Your task to perform on an android device: check android version Image 0: 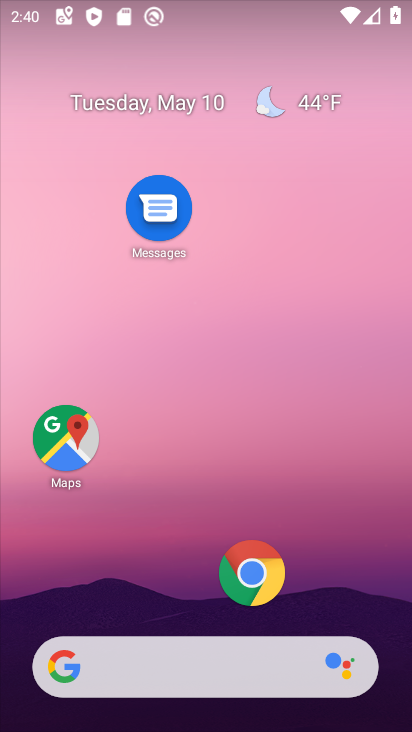
Step 0: drag from (174, 612) to (200, 175)
Your task to perform on an android device: check android version Image 1: 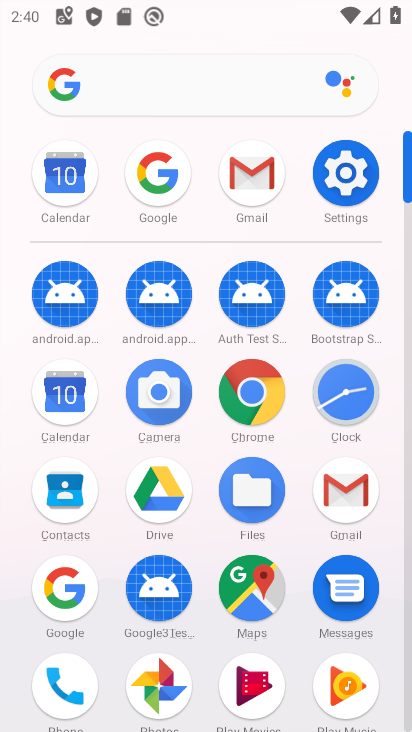
Step 1: click (337, 169)
Your task to perform on an android device: check android version Image 2: 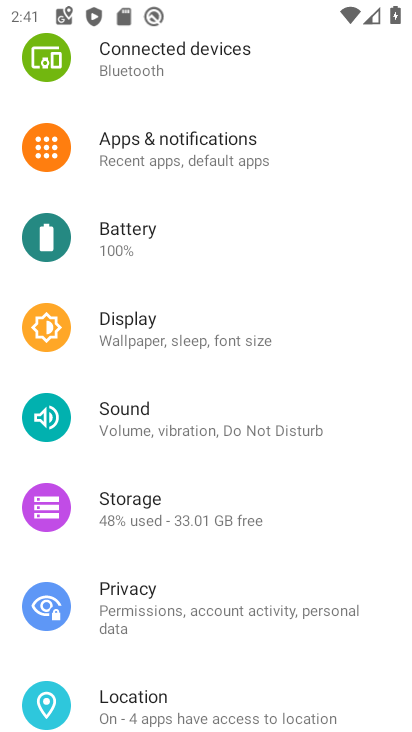
Step 2: drag from (213, 645) to (223, 195)
Your task to perform on an android device: check android version Image 3: 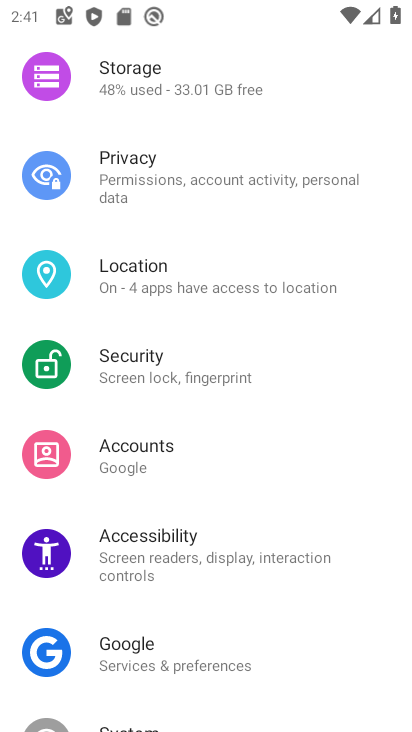
Step 3: drag from (194, 636) to (213, 207)
Your task to perform on an android device: check android version Image 4: 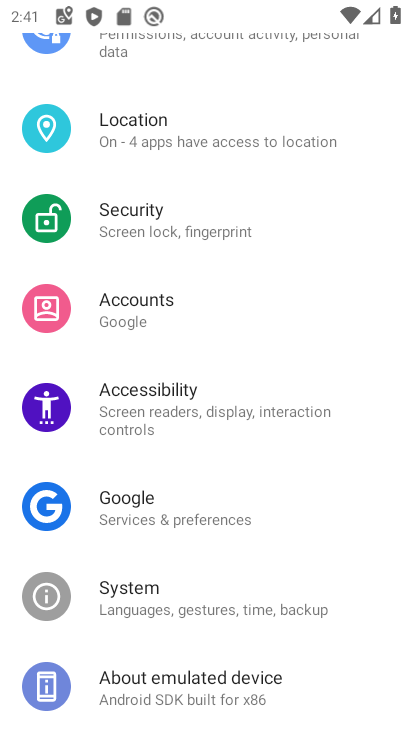
Step 4: click (189, 682)
Your task to perform on an android device: check android version Image 5: 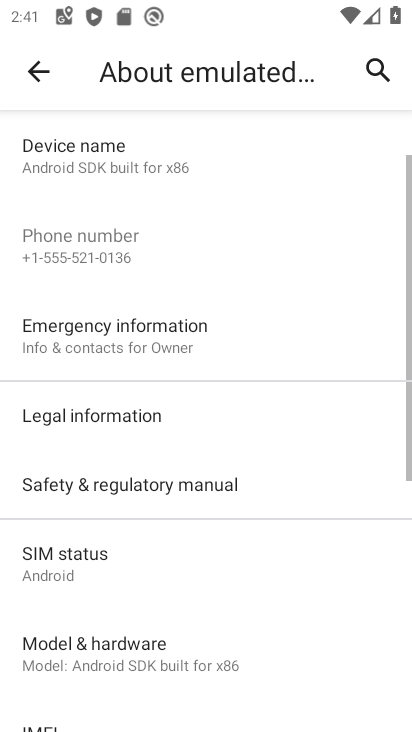
Step 5: drag from (161, 639) to (210, 394)
Your task to perform on an android device: check android version Image 6: 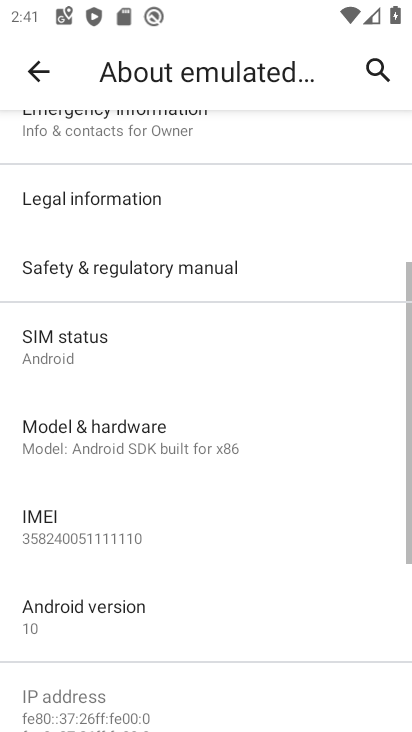
Step 6: drag from (165, 618) to (193, 437)
Your task to perform on an android device: check android version Image 7: 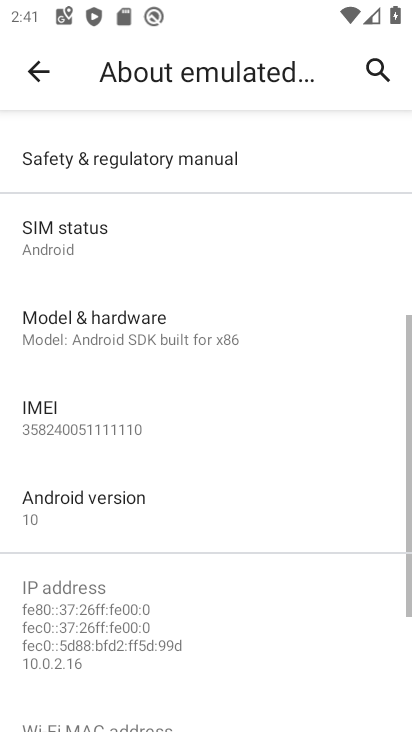
Step 7: click (136, 512)
Your task to perform on an android device: check android version Image 8: 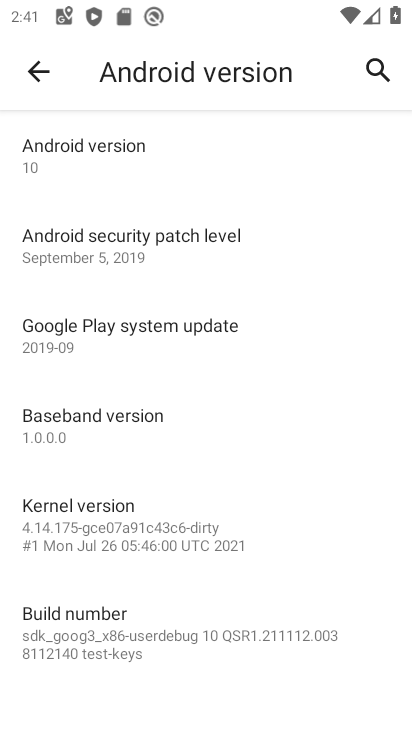
Step 8: click (165, 154)
Your task to perform on an android device: check android version Image 9: 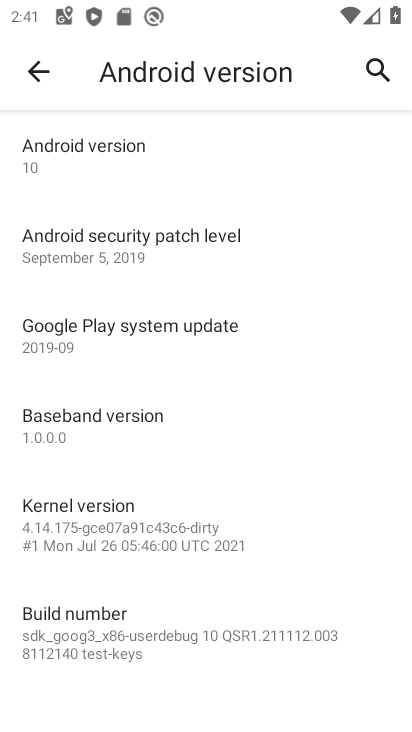
Step 9: task complete